Your task to perform on an android device: Go to display settings Image 0: 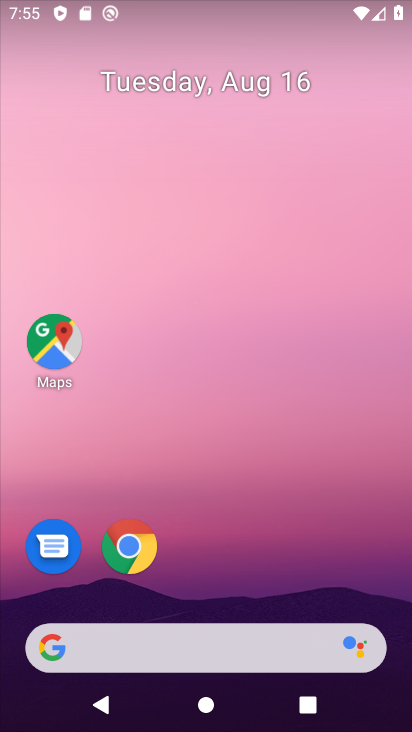
Step 0: drag from (207, 392) to (260, 5)
Your task to perform on an android device: Go to display settings Image 1: 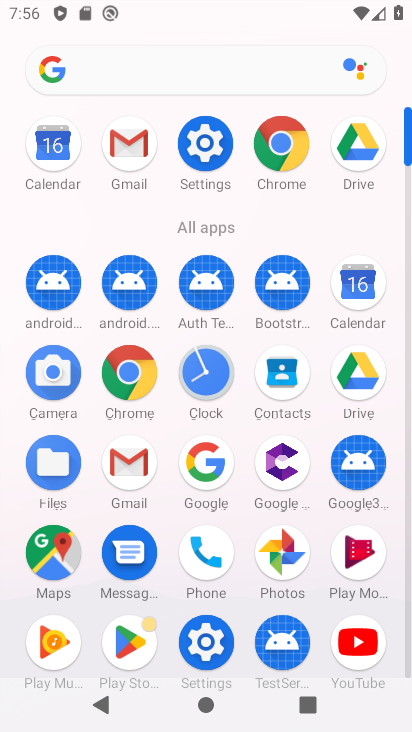
Step 1: click (198, 139)
Your task to perform on an android device: Go to display settings Image 2: 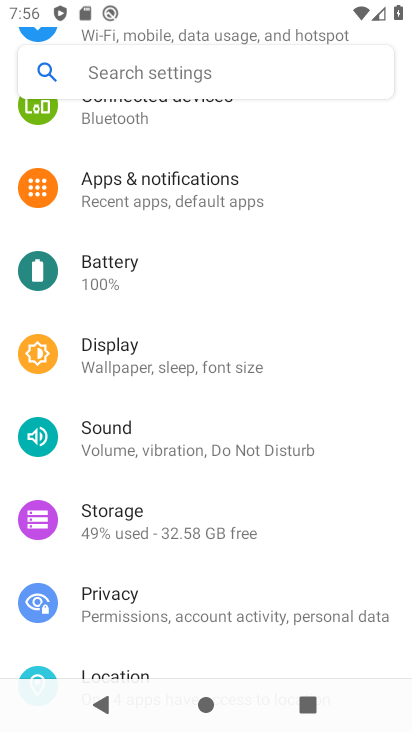
Step 2: click (115, 345)
Your task to perform on an android device: Go to display settings Image 3: 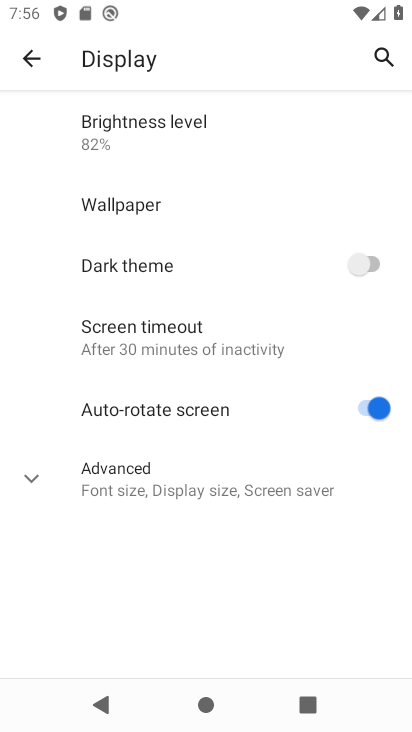
Step 3: task complete